Your task to perform on an android device: Go to calendar. Show me events next week Image 0: 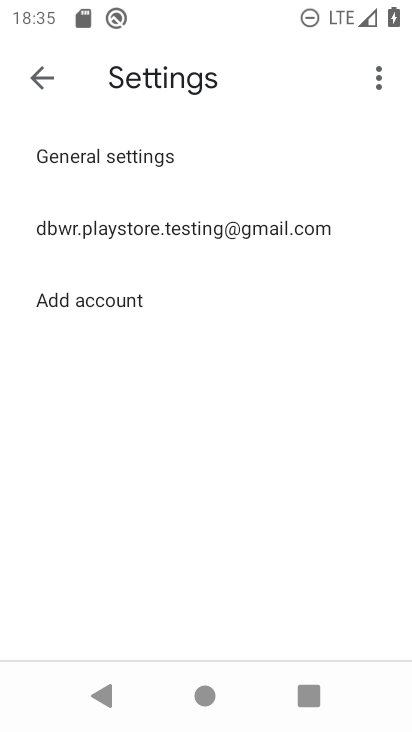
Step 0: press home button
Your task to perform on an android device: Go to calendar. Show me events next week Image 1: 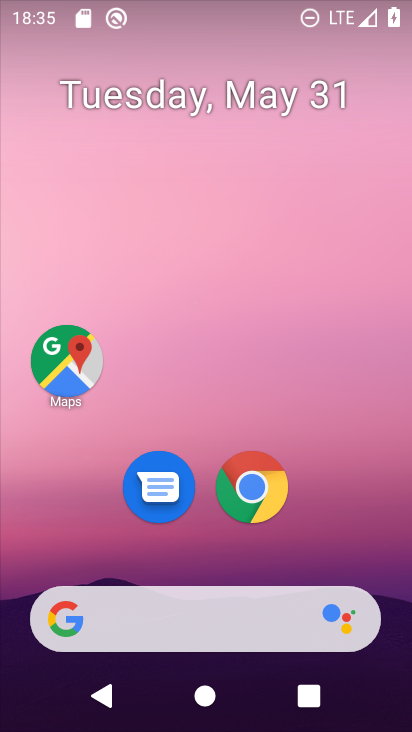
Step 1: drag from (318, 536) to (184, 77)
Your task to perform on an android device: Go to calendar. Show me events next week Image 2: 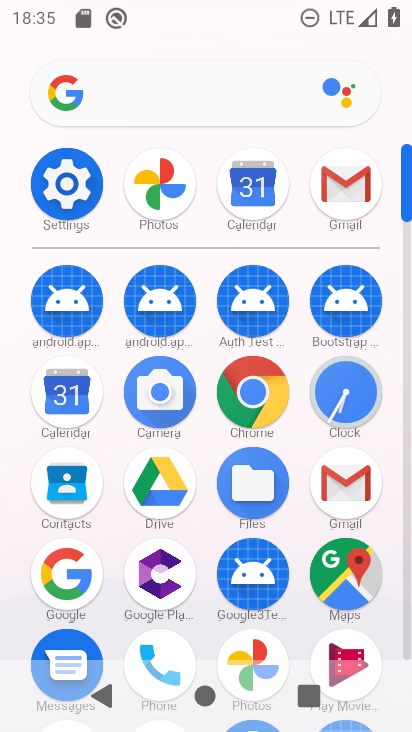
Step 2: click (65, 388)
Your task to perform on an android device: Go to calendar. Show me events next week Image 3: 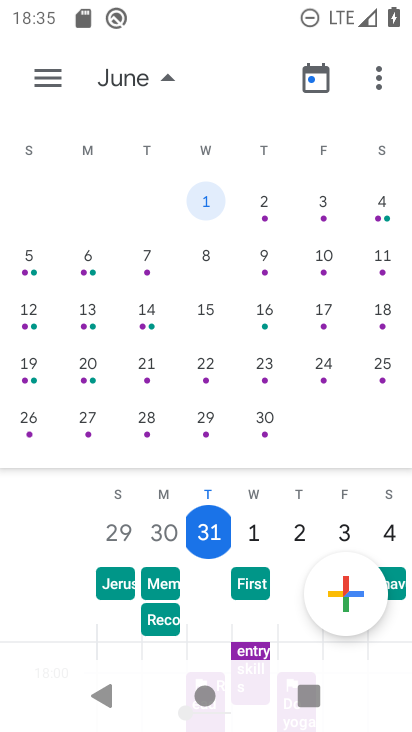
Step 3: click (201, 206)
Your task to perform on an android device: Go to calendar. Show me events next week Image 4: 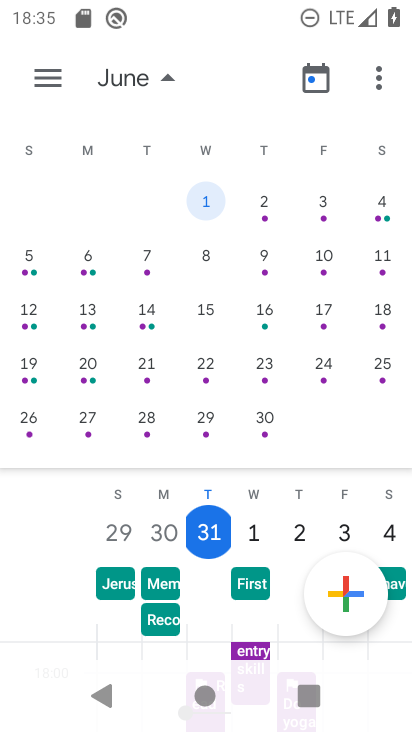
Step 4: click (90, 260)
Your task to perform on an android device: Go to calendar. Show me events next week Image 5: 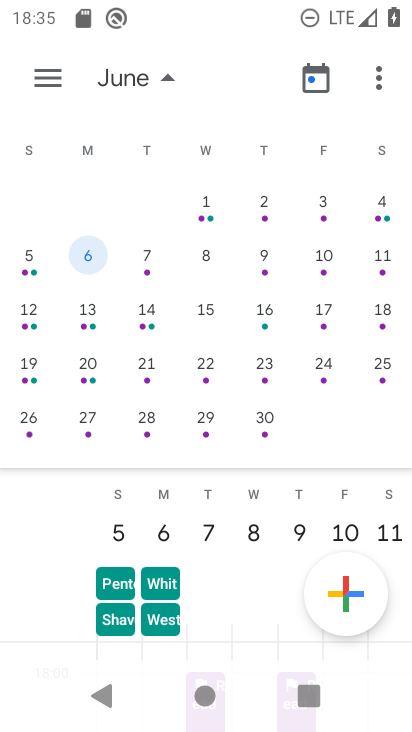
Step 5: task complete